Your task to perform on an android device: Open internet settings Image 0: 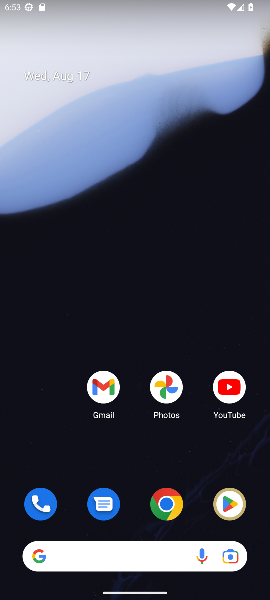
Step 0: drag from (189, 451) to (130, 13)
Your task to perform on an android device: Open internet settings Image 1: 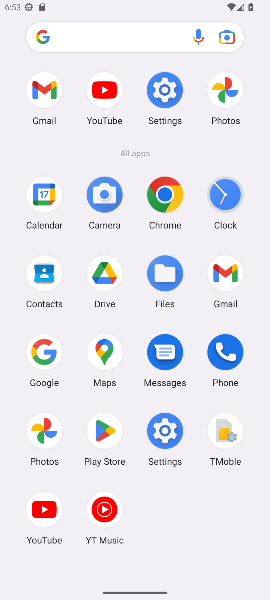
Step 1: click (161, 447)
Your task to perform on an android device: Open internet settings Image 2: 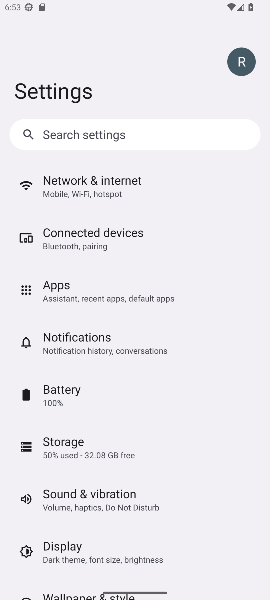
Step 2: click (149, 191)
Your task to perform on an android device: Open internet settings Image 3: 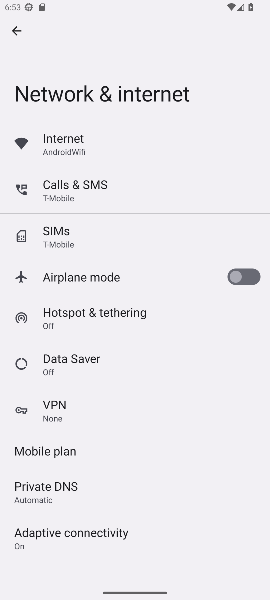
Step 3: task complete